Your task to perform on an android device: change the clock display to show seconds Image 0: 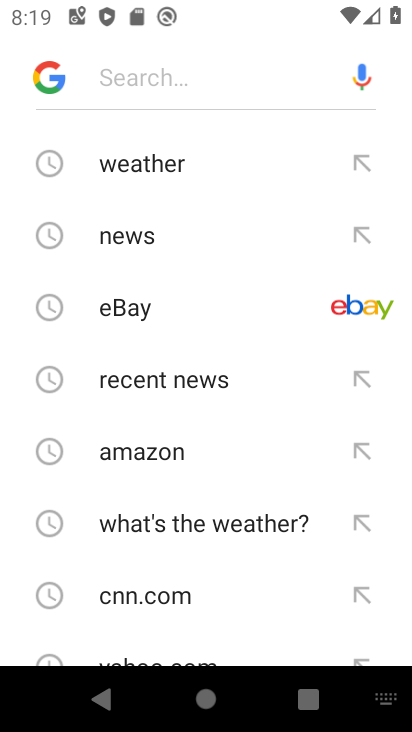
Step 0: press home button
Your task to perform on an android device: change the clock display to show seconds Image 1: 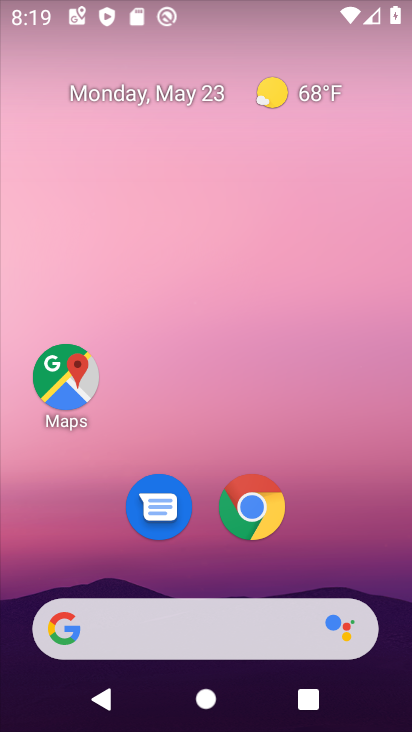
Step 1: drag from (204, 551) to (297, 8)
Your task to perform on an android device: change the clock display to show seconds Image 2: 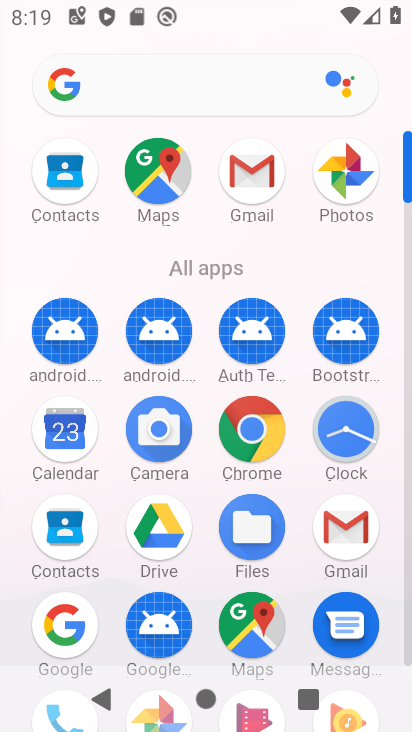
Step 2: click (338, 418)
Your task to perform on an android device: change the clock display to show seconds Image 3: 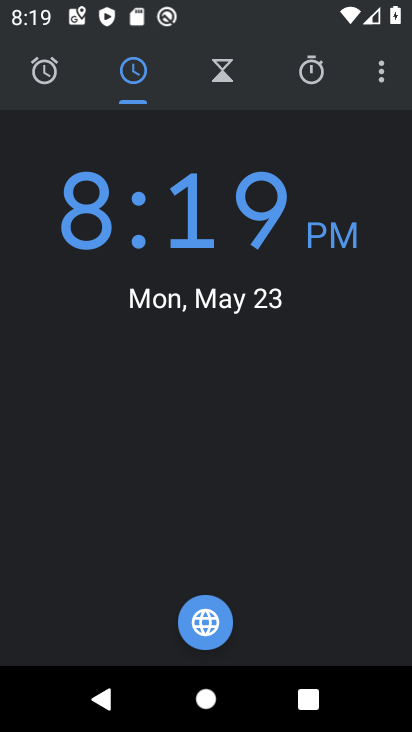
Step 3: click (383, 71)
Your task to perform on an android device: change the clock display to show seconds Image 4: 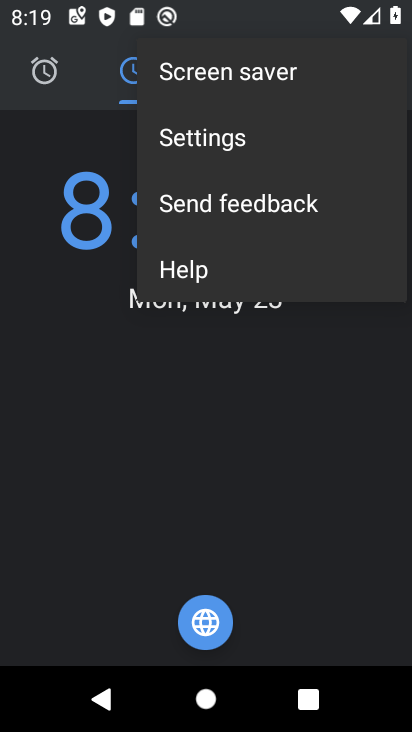
Step 4: click (224, 138)
Your task to perform on an android device: change the clock display to show seconds Image 5: 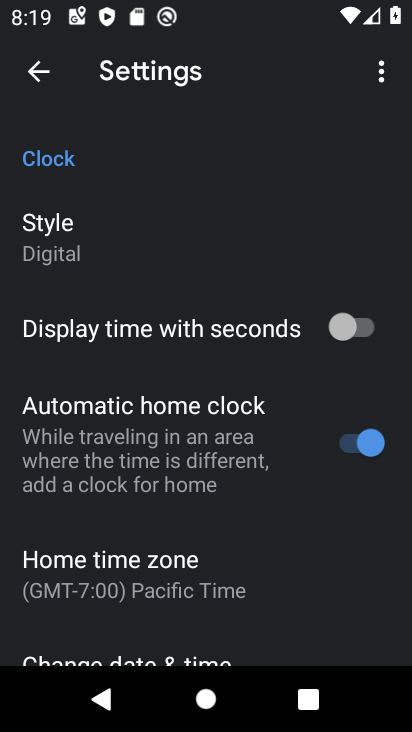
Step 5: click (375, 325)
Your task to perform on an android device: change the clock display to show seconds Image 6: 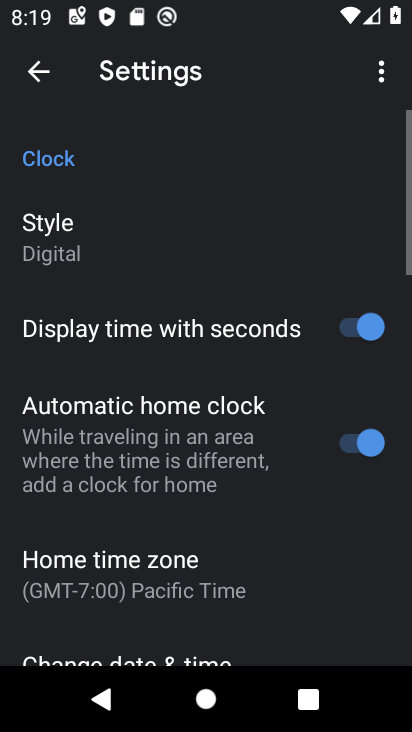
Step 6: task complete